Your task to perform on an android device: open a bookmark in the chrome app Image 0: 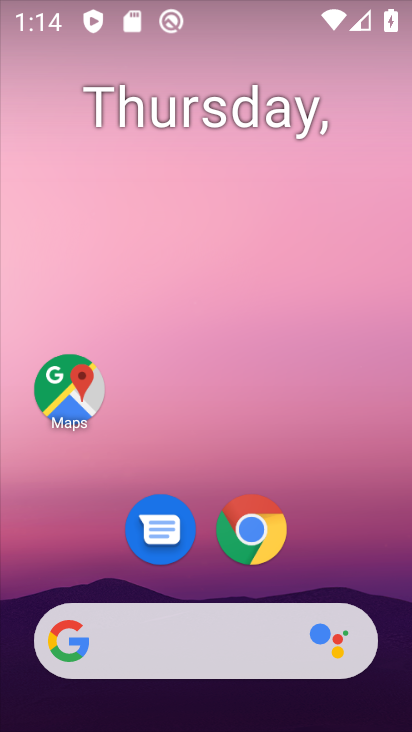
Step 0: click (253, 522)
Your task to perform on an android device: open a bookmark in the chrome app Image 1: 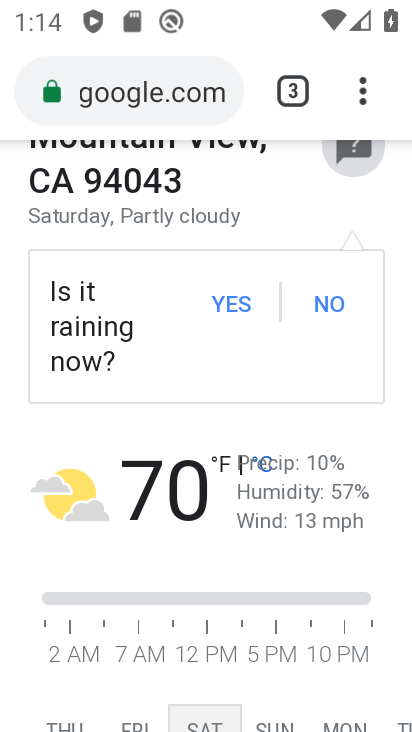
Step 1: task complete